Your task to perform on an android device: change the clock display to analog Image 0: 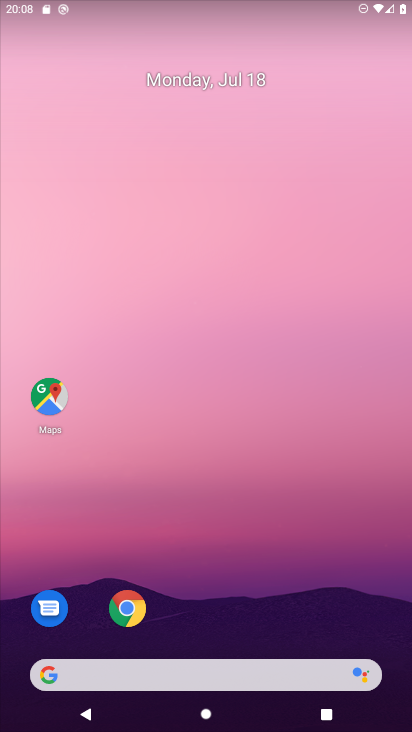
Step 0: drag from (228, 624) to (262, 200)
Your task to perform on an android device: change the clock display to analog Image 1: 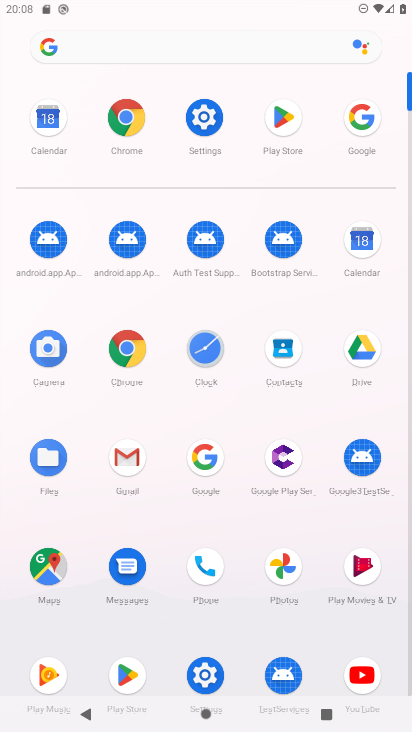
Step 1: click (205, 355)
Your task to perform on an android device: change the clock display to analog Image 2: 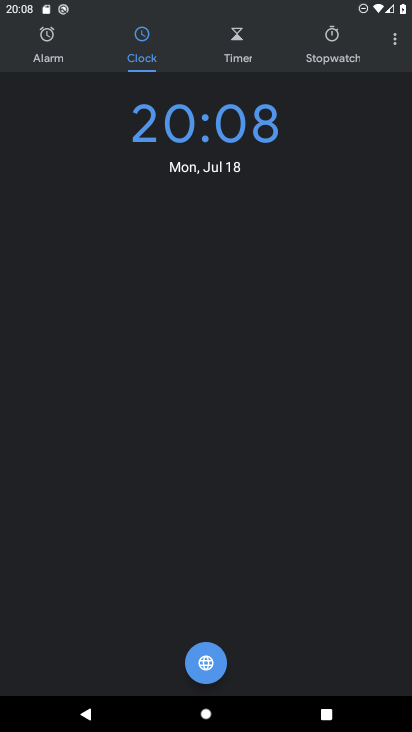
Step 2: click (391, 45)
Your task to perform on an android device: change the clock display to analog Image 3: 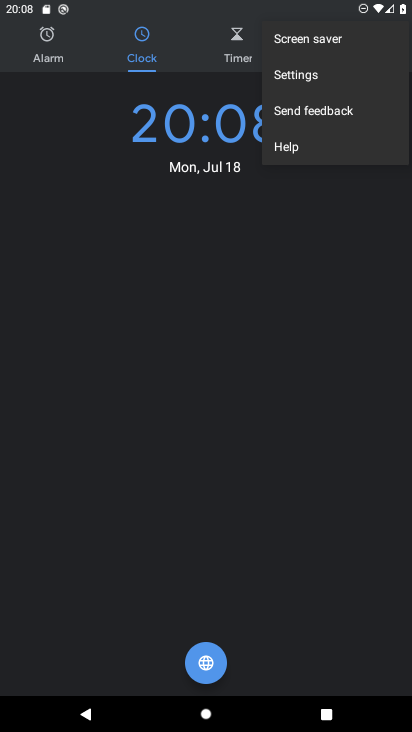
Step 3: click (299, 75)
Your task to perform on an android device: change the clock display to analog Image 4: 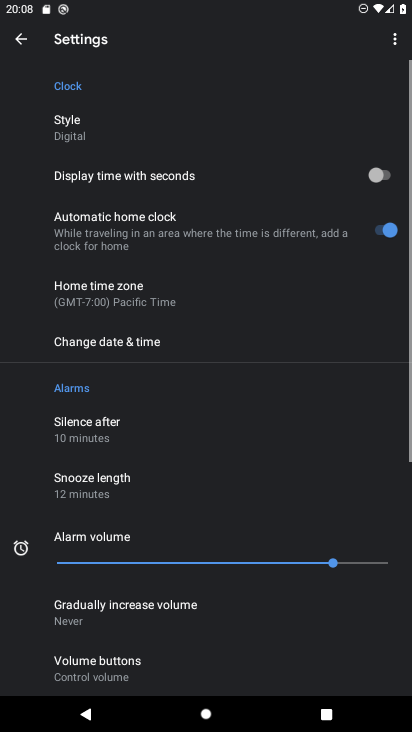
Step 4: click (103, 124)
Your task to perform on an android device: change the clock display to analog Image 5: 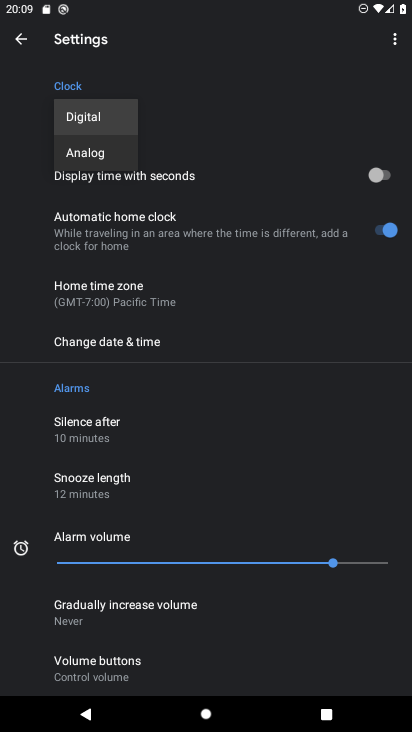
Step 5: click (82, 145)
Your task to perform on an android device: change the clock display to analog Image 6: 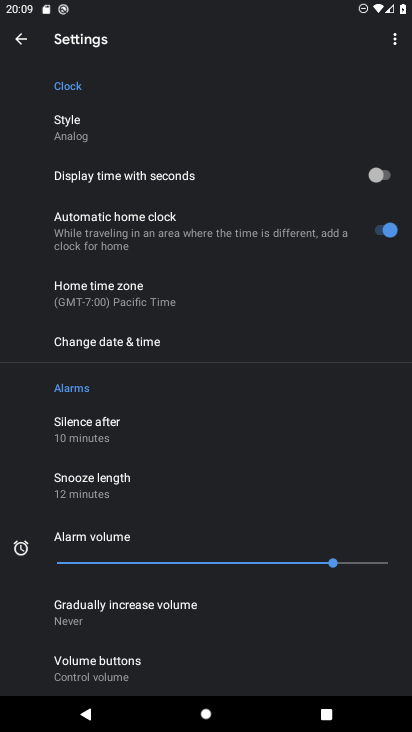
Step 6: task complete